Your task to perform on an android device: Open wifi settings Image 0: 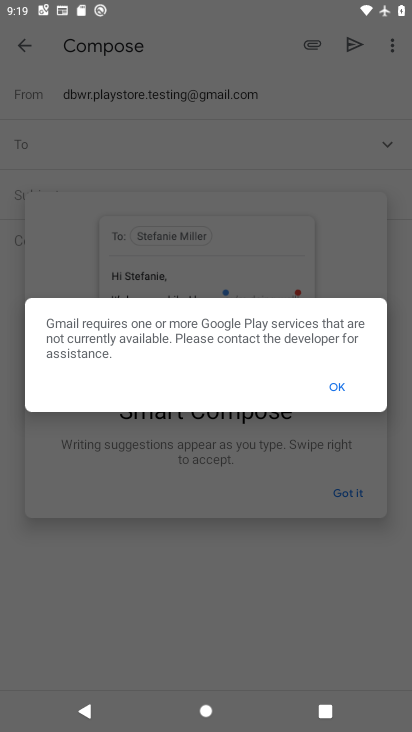
Step 0: press home button
Your task to perform on an android device: Open wifi settings Image 1: 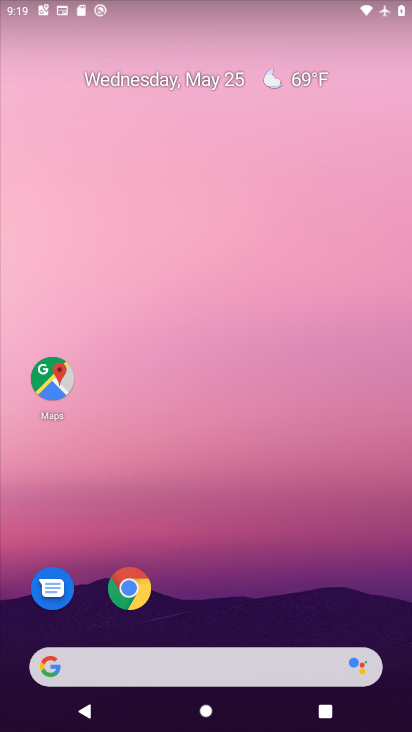
Step 1: drag from (360, 617) to (359, 69)
Your task to perform on an android device: Open wifi settings Image 2: 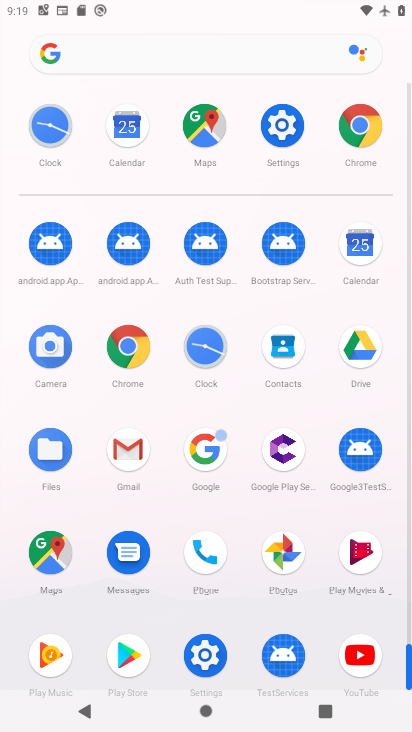
Step 2: click (289, 136)
Your task to perform on an android device: Open wifi settings Image 3: 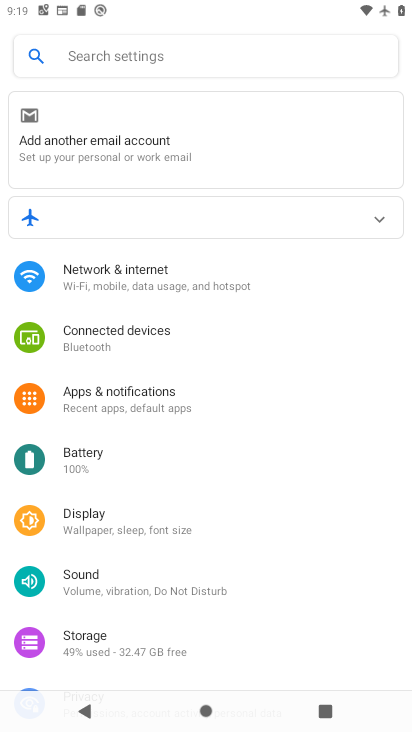
Step 3: drag from (308, 553) to (312, 462)
Your task to perform on an android device: Open wifi settings Image 4: 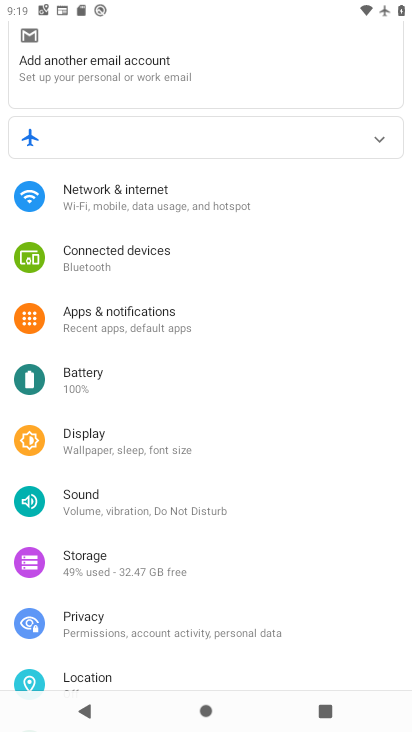
Step 4: drag from (330, 583) to (354, 482)
Your task to perform on an android device: Open wifi settings Image 5: 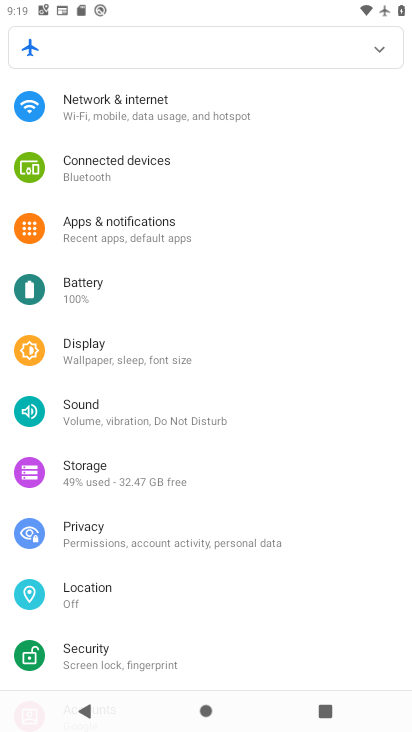
Step 5: drag from (360, 557) to (354, 475)
Your task to perform on an android device: Open wifi settings Image 6: 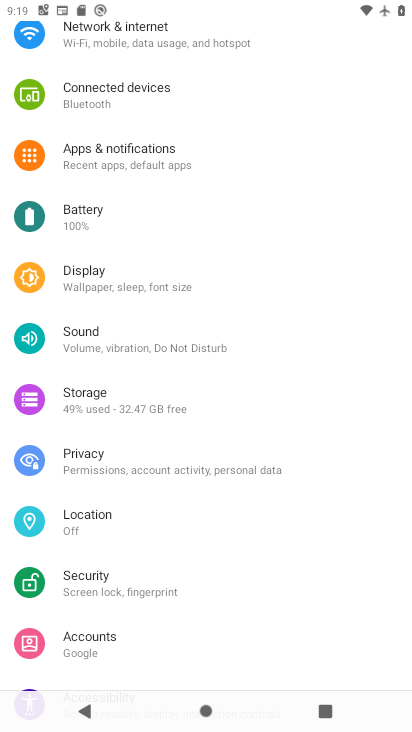
Step 6: drag from (366, 600) to (373, 495)
Your task to perform on an android device: Open wifi settings Image 7: 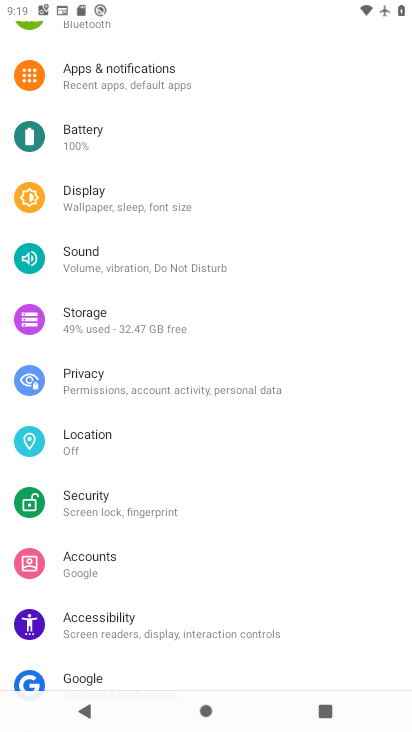
Step 7: drag from (369, 608) to (366, 502)
Your task to perform on an android device: Open wifi settings Image 8: 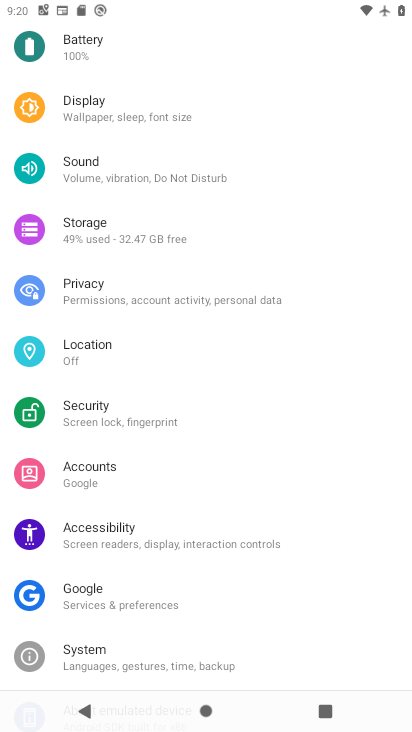
Step 8: drag from (350, 615) to (362, 483)
Your task to perform on an android device: Open wifi settings Image 9: 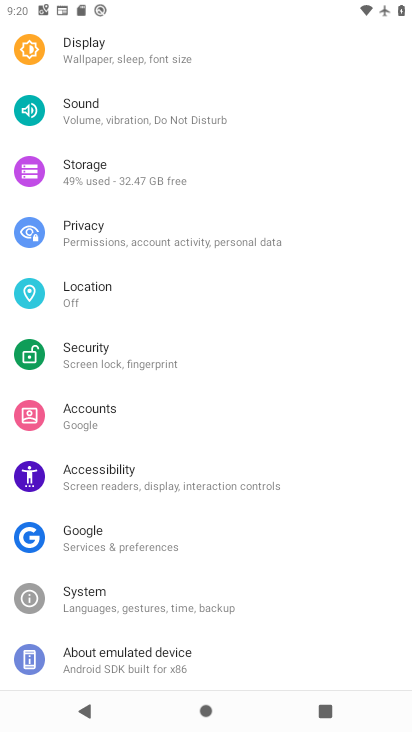
Step 9: drag from (348, 373) to (340, 510)
Your task to perform on an android device: Open wifi settings Image 10: 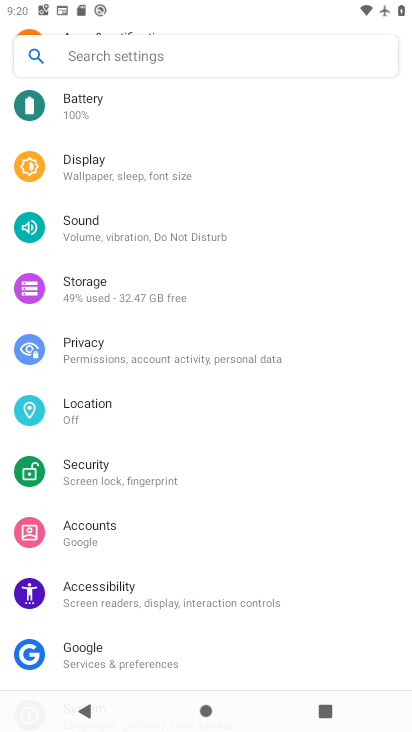
Step 10: drag from (332, 309) to (351, 438)
Your task to perform on an android device: Open wifi settings Image 11: 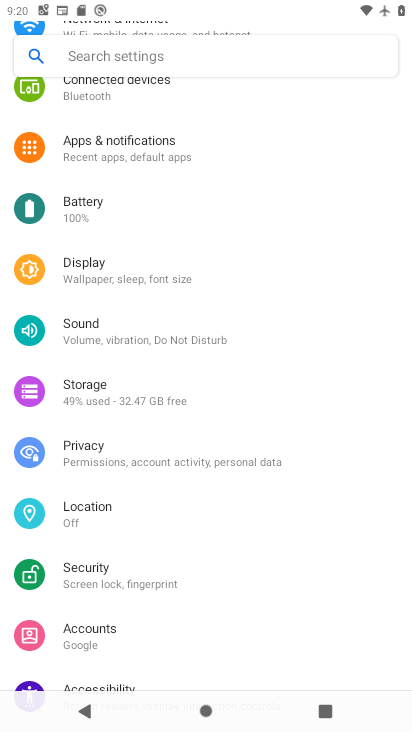
Step 11: drag from (332, 268) to (340, 388)
Your task to perform on an android device: Open wifi settings Image 12: 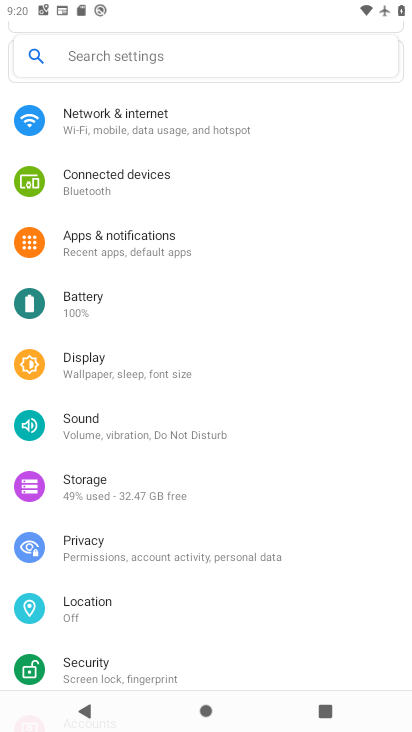
Step 12: drag from (324, 255) to (310, 395)
Your task to perform on an android device: Open wifi settings Image 13: 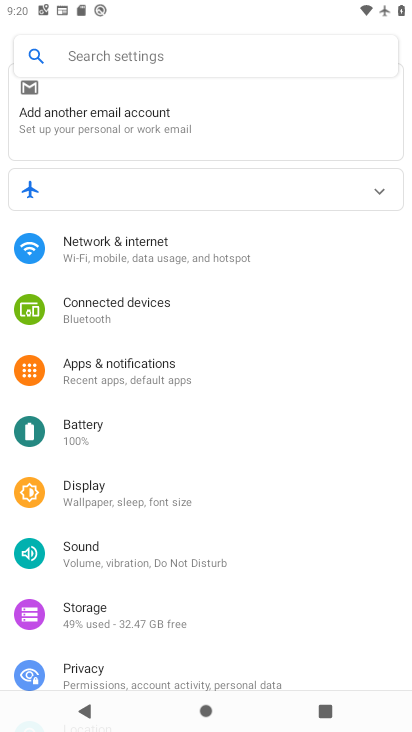
Step 13: drag from (342, 219) to (330, 382)
Your task to perform on an android device: Open wifi settings Image 14: 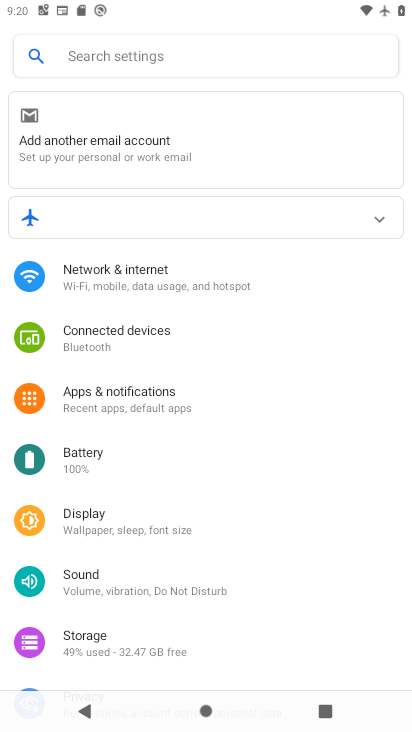
Step 14: click (239, 287)
Your task to perform on an android device: Open wifi settings Image 15: 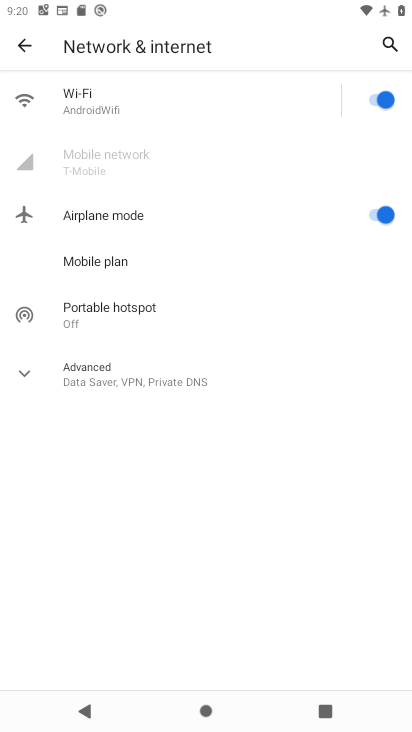
Step 15: click (118, 96)
Your task to perform on an android device: Open wifi settings Image 16: 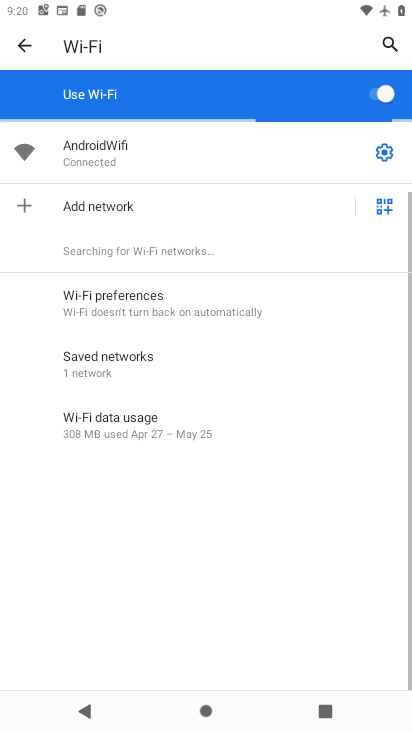
Step 16: task complete